Your task to perform on an android device: check google app version Image 0: 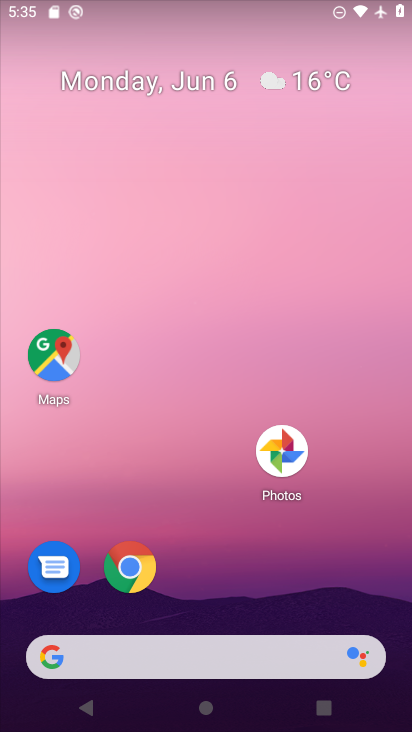
Step 0: drag from (225, 701) to (157, 285)
Your task to perform on an android device: check google app version Image 1: 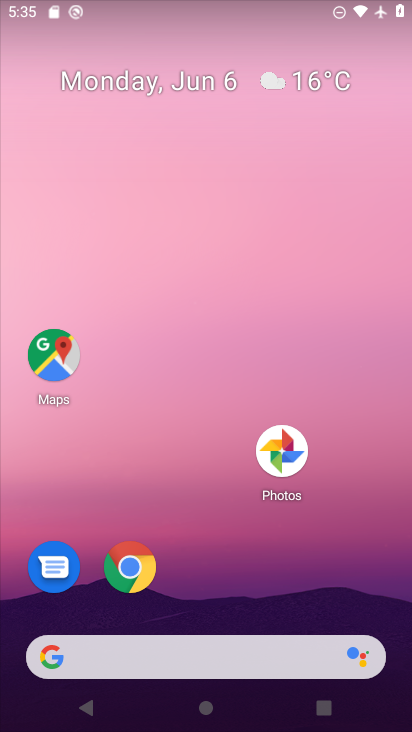
Step 1: drag from (283, 679) to (181, 115)
Your task to perform on an android device: check google app version Image 2: 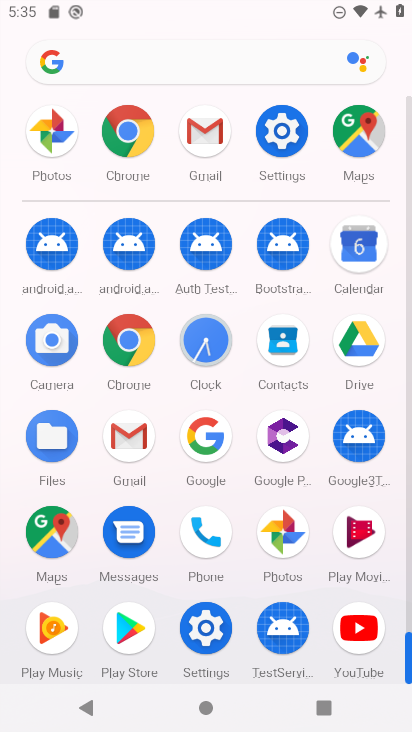
Step 2: drag from (213, 608) to (157, 120)
Your task to perform on an android device: check google app version Image 3: 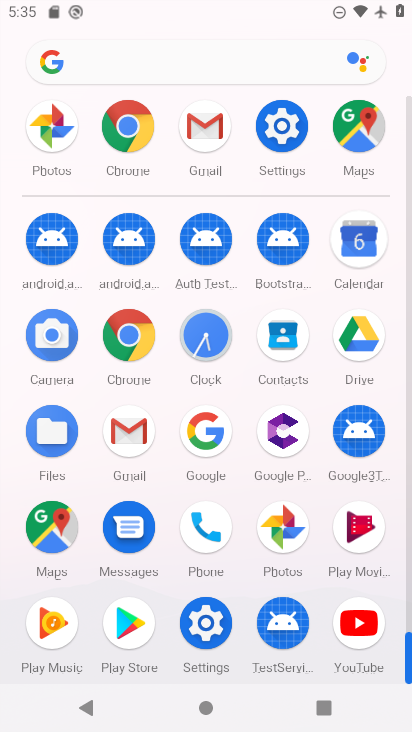
Step 3: click (196, 436)
Your task to perform on an android device: check google app version Image 4: 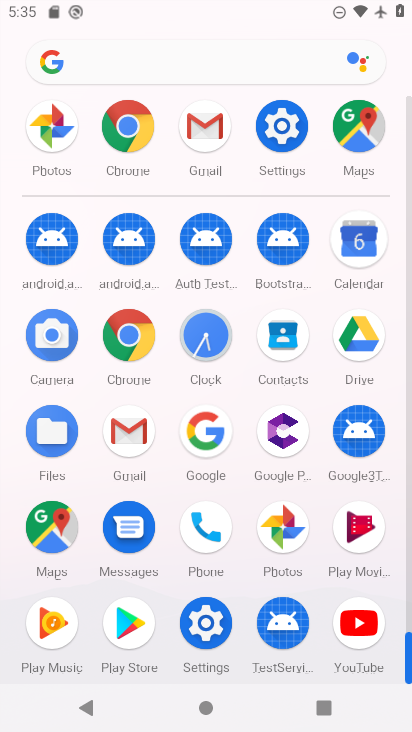
Step 4: click (199, 437)
Your task to perform on an android device: check google app version Image 5: 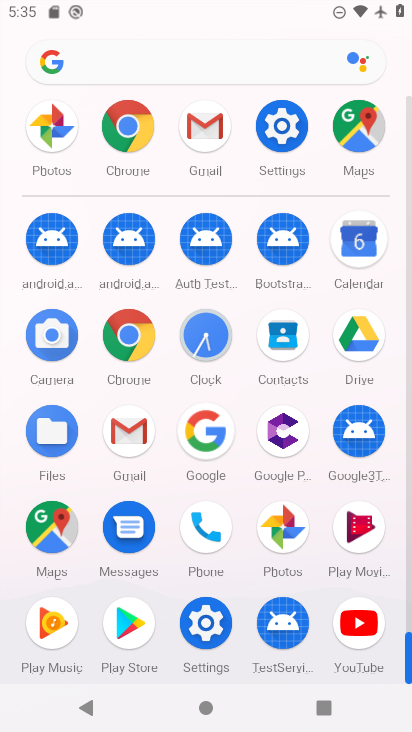
Step 5: click (199, 443)
Your task to perform on an android device: check google app version Image 6: 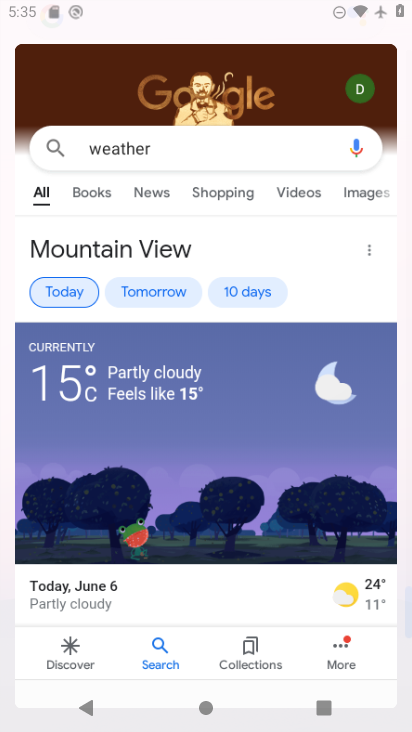
Step 6: click (199, 441)
Your task to perform on an android device: check google app version Image 7: 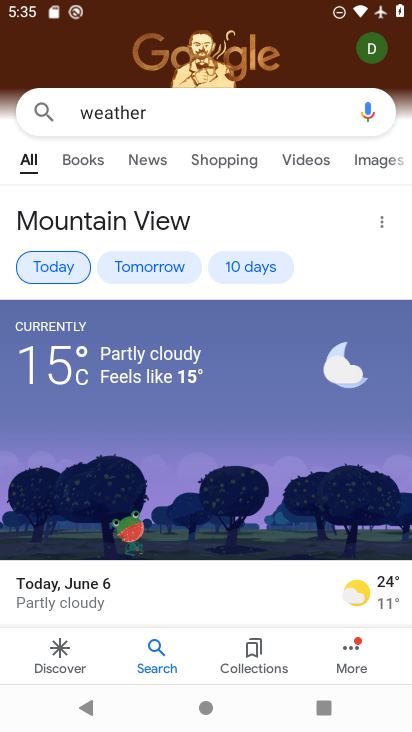
Step 7: click (200, 439)
Your task to perform on an android device: check google app version Image 8: 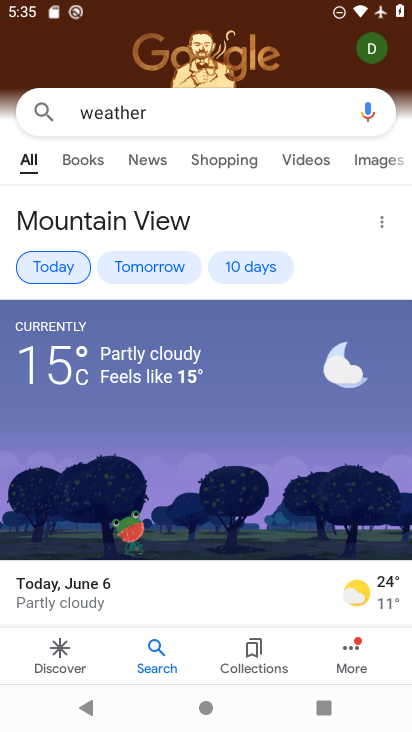
Step 8: click (347, 651)
Your task to perform on an android device: check google app version Image 9: 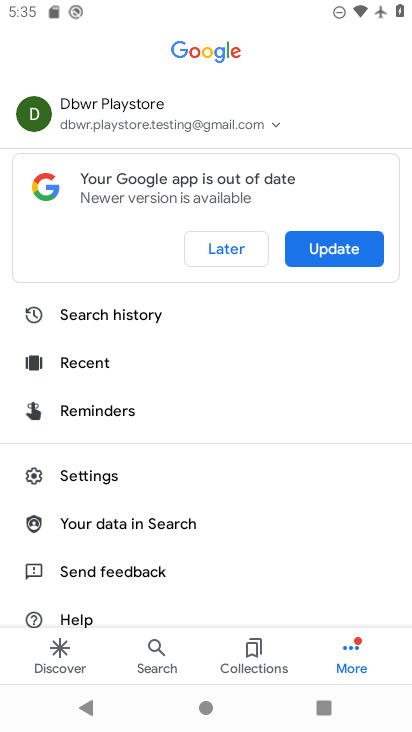
Step 9: click (84, 465)
Your task to perform on an android device: check google app version Image 10: 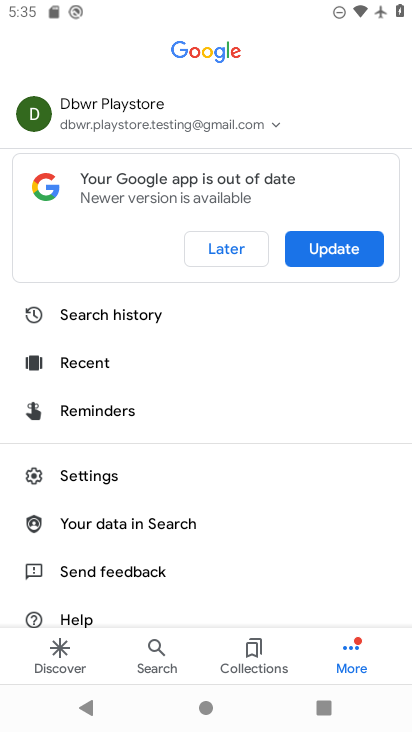
Step 10: click (98, 476)
Your task to perform on an android device: check google app version Image 11: 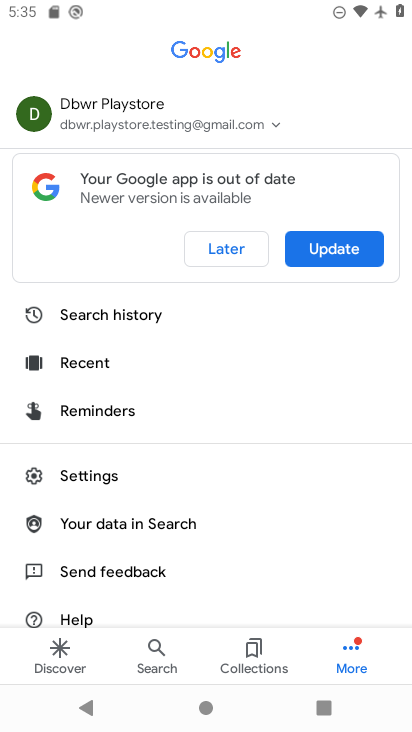
Step 11: click (98, 476)
Your task to perform on an android device: check google app version Image 12: 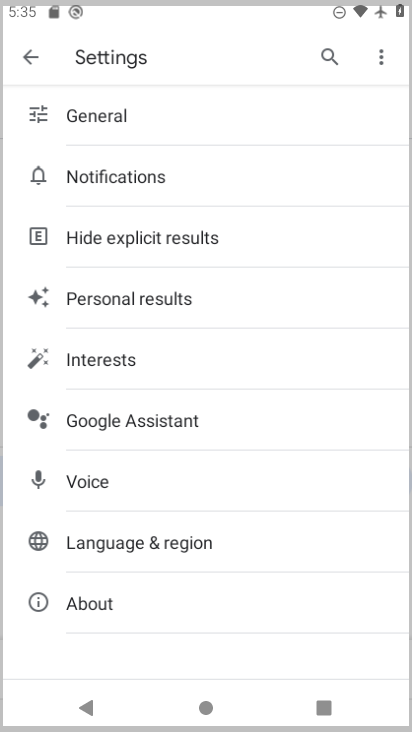
Step 12: click (99, 475)
Your task to perform on an android device: check google app version Image 13: 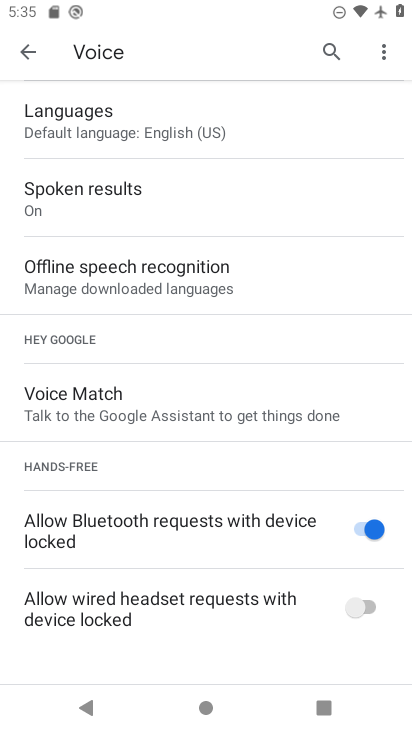
Step 13: drag from (135, 518) to (112, 77)
Your task to perform on an android device: check google app version Image 14: 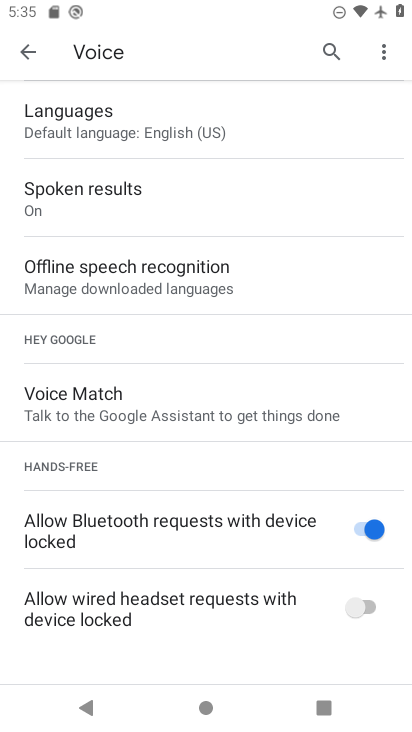
Step 14: drag from (123, 388) to (112, 133)
Your task to perform on an android device: check google app version Image 15: 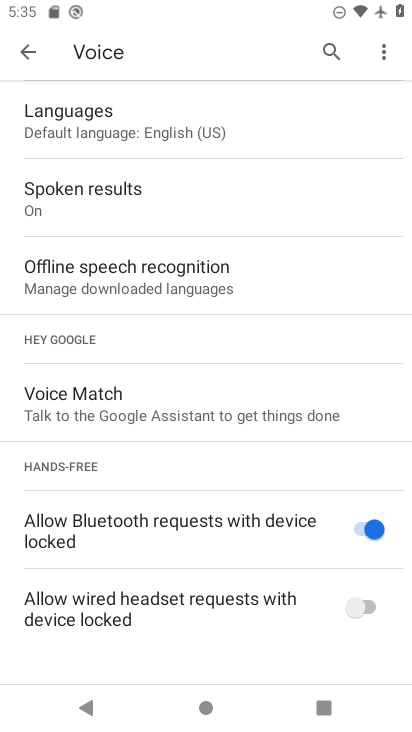
Step 15: drag from (134, 329) to (97, 114)
Your task to perform on an android device: check google app version Image 16: 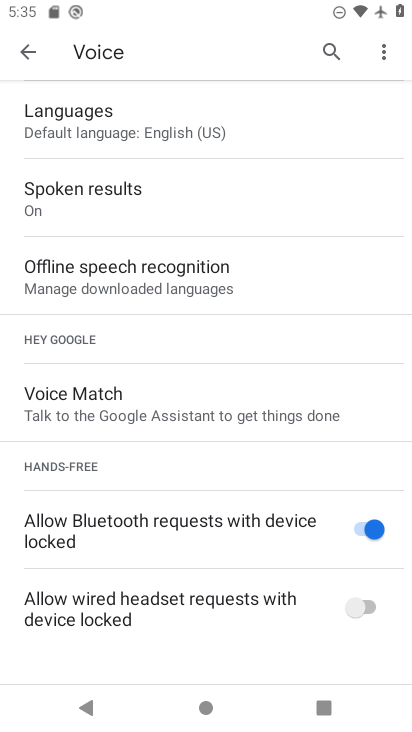
Step 16: click (25, 33)
Your task to perform on an android device: check google app version Image 17: 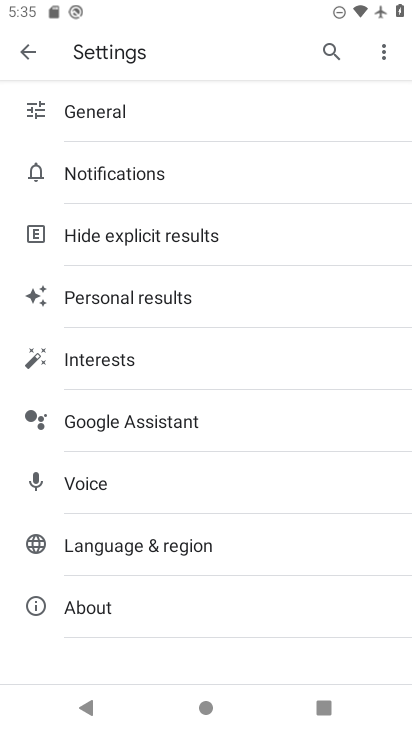
Step 17: task complete